Your task to perform on an android device: add a contact Image 0: 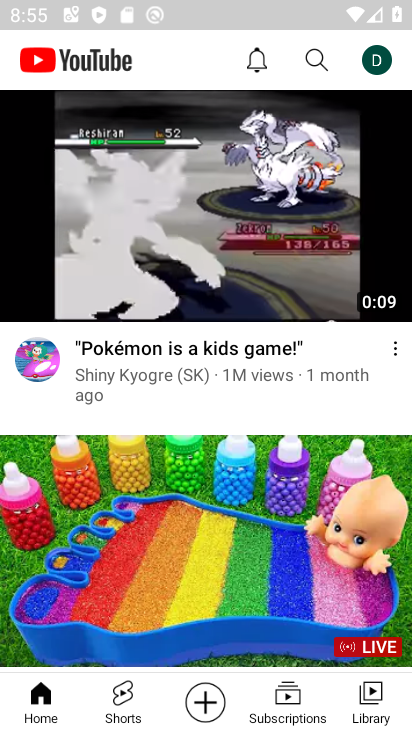
Step 0: press home button
Your task to perform on an android device: add a contact Image 1: 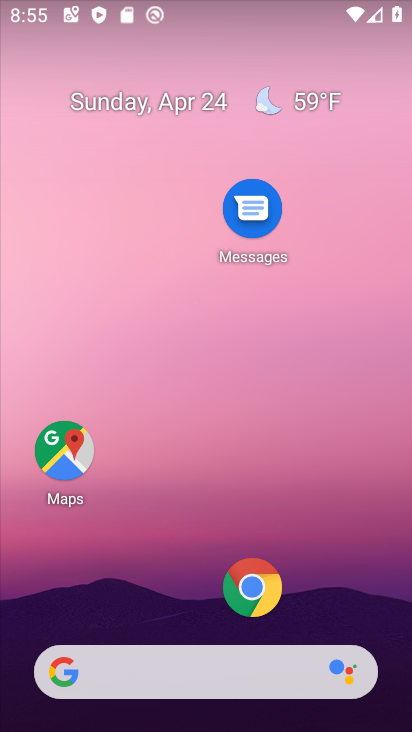
Step 1: drag from (166, 574) to (194, 44)
Your task to perform on an android device: add a contact Image 2: 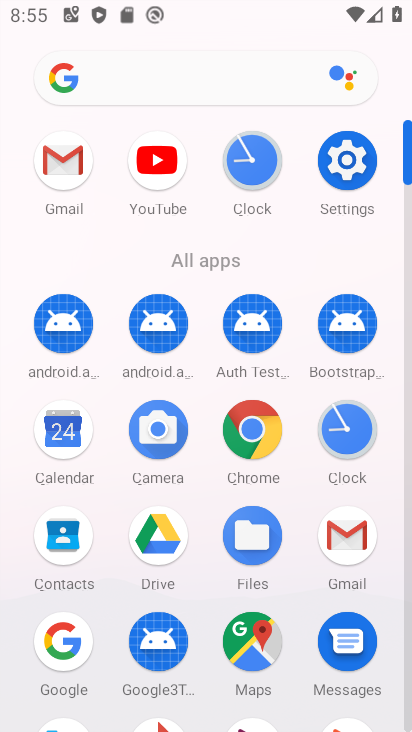
Step 2: click (64, 544)
Your task to perform on an android device: add a contact Image 3: 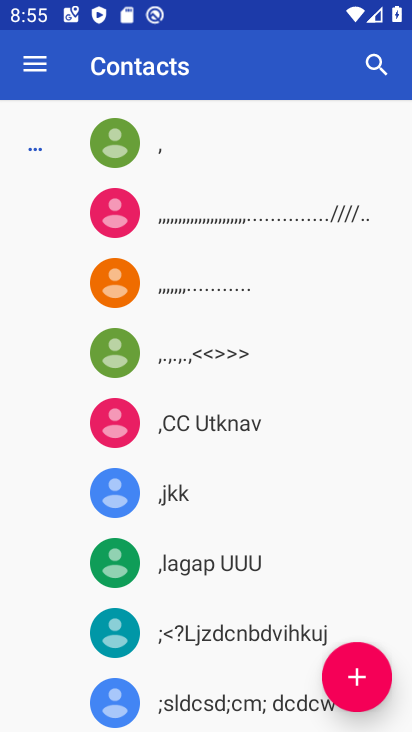
Step 3: click (369, 672)
Your task to perform on an android device: add a contact Image 4: 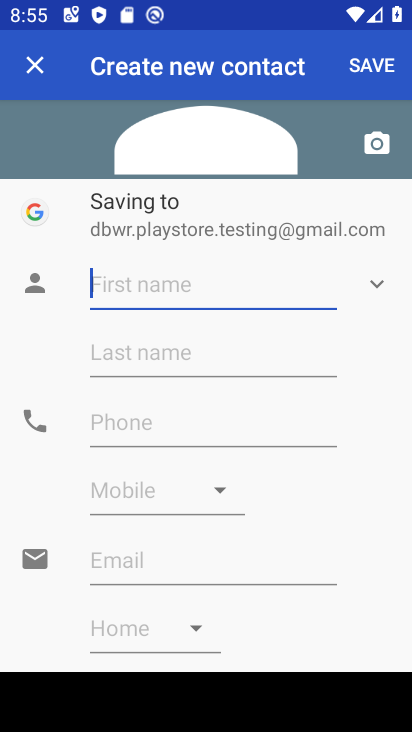
Step 4: type "crist"
Your task to perform on an android device: add a contact Image 5: 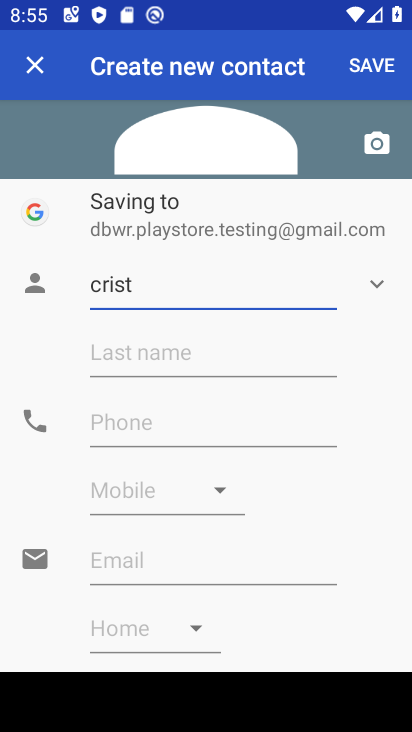
Step 5: click (364, 62)
Your task to perform on an android device: add a contact Image 6: 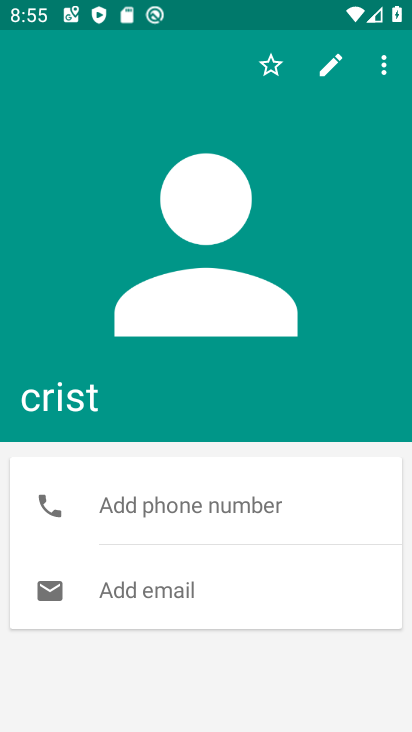
Step 6: task complete